Your task to perform on an android device: find photos in the google photos app Image 0: 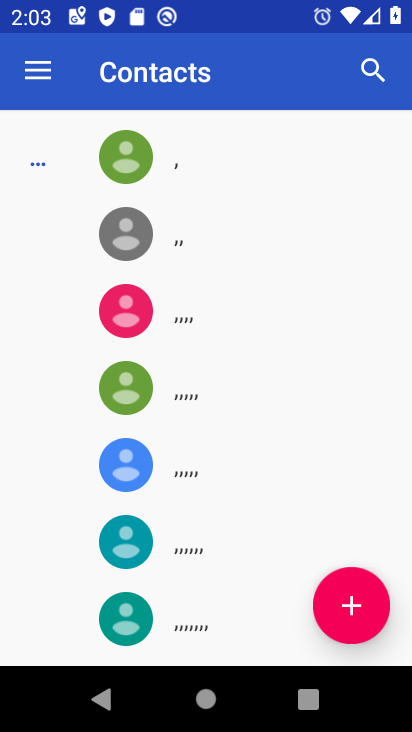
Step 0: press home button
Your task to perform on an android device: find photos in the google photos app Image 1: 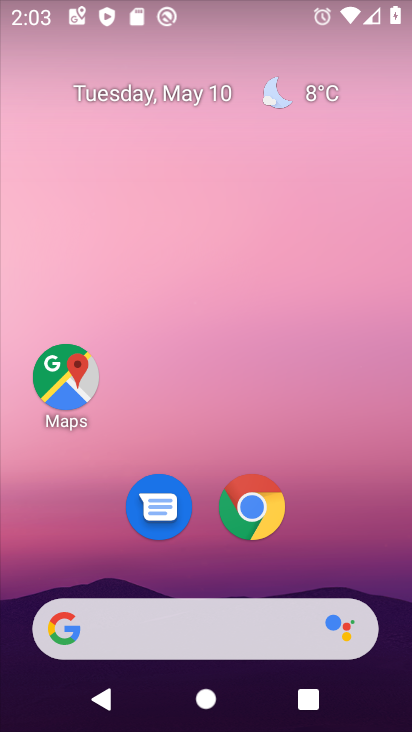
Step 1: drag from (230, 715) to (236, 150)
Your task to perform on an android device: find photos in the google photos app Image 2: 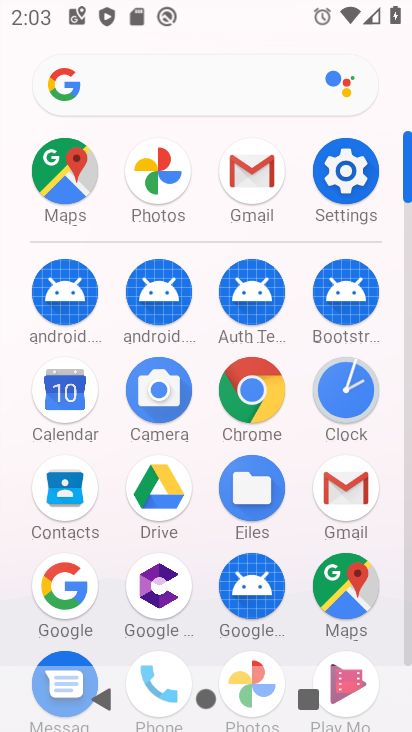
Step 2: click (156, 183)
Your task to perform on an android device: find photos in the google photos app Image 3: 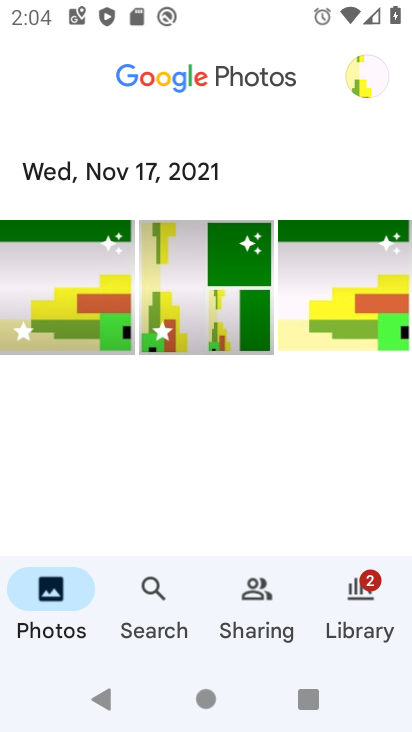
Step 3: click (80, 268)
Your task to perform on an android device: find photos in the google photos app Image 4: 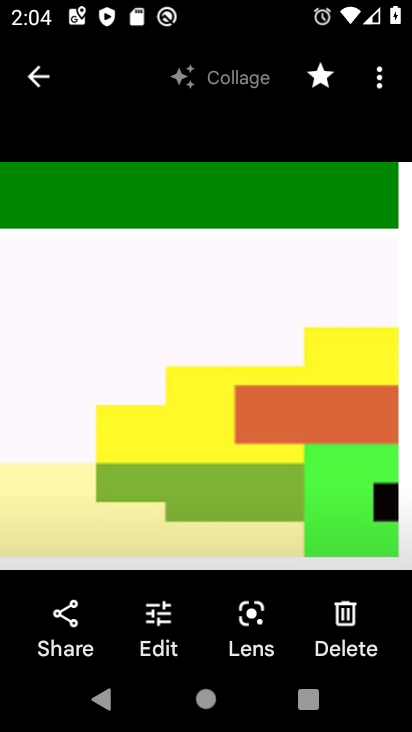
Step 4: task complete